Your task to perform on an android device: toggle show notifications on the lock screen Image 0: 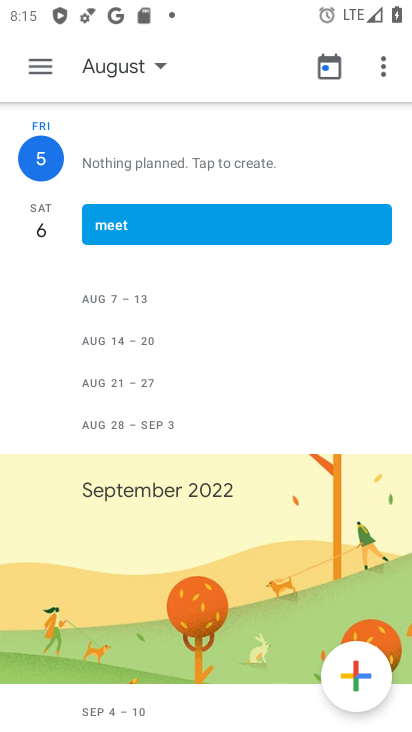
Step 0: press home button
Your task to perform on an android device: toggle show notifications on the lock screen Image 1: 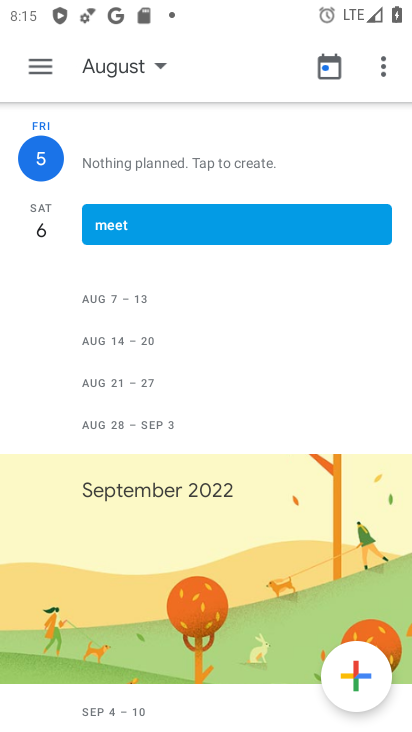
Step 1: press home button
Your task to perform on an android device: toggle show notifications on the lock screen Image 2: 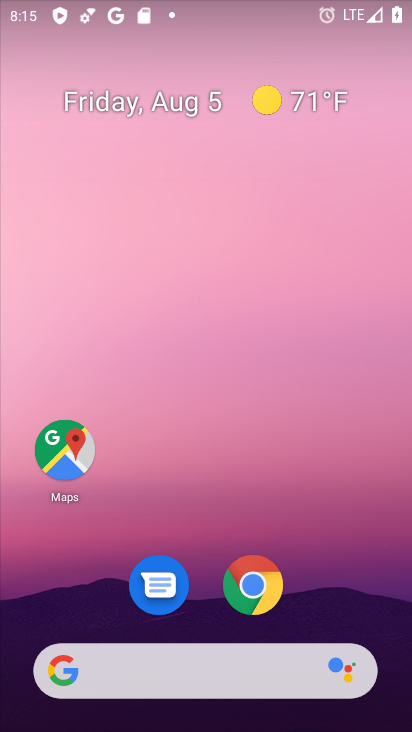
Step 2: drag from (222, 530) to (288, 15)
Your task to perform on an android device: toggle show notifications on the lock screen Image 3: 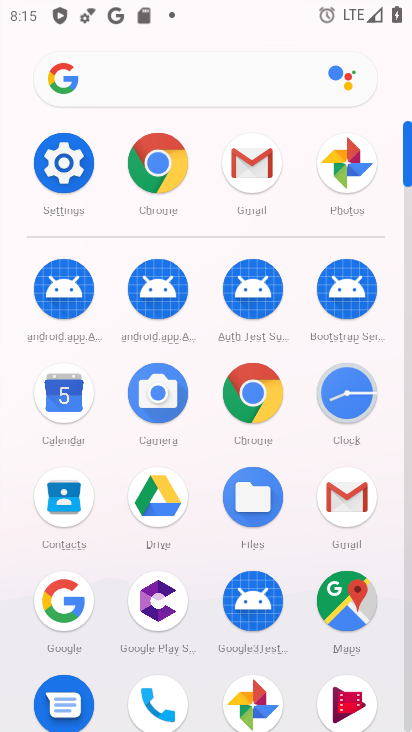
Step 3: click (71, 156)
Your task to perform on an android device: toggle show notifications on the lock screen Image 4: 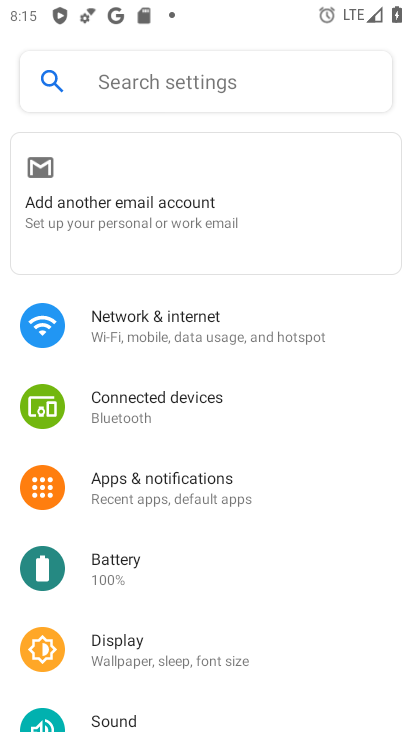
Step 4: click (219, 489)
Your task to perform on an android device: toggle show notifications on the lock screen Image 5: 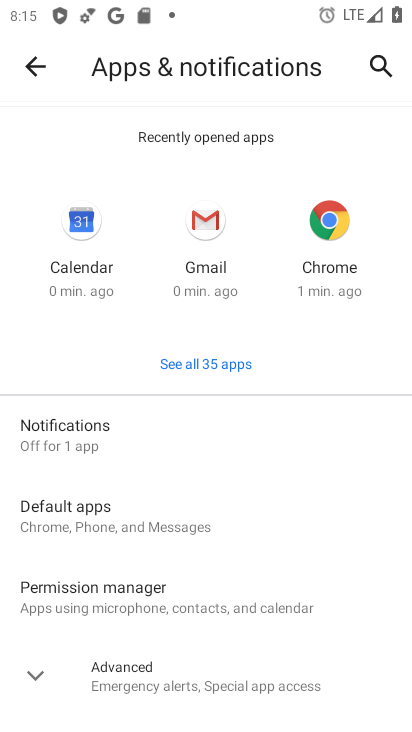
Step 5: click (100, 441)
Your task to perform on an android device: toggle show notifications on the lock screen Image 6: 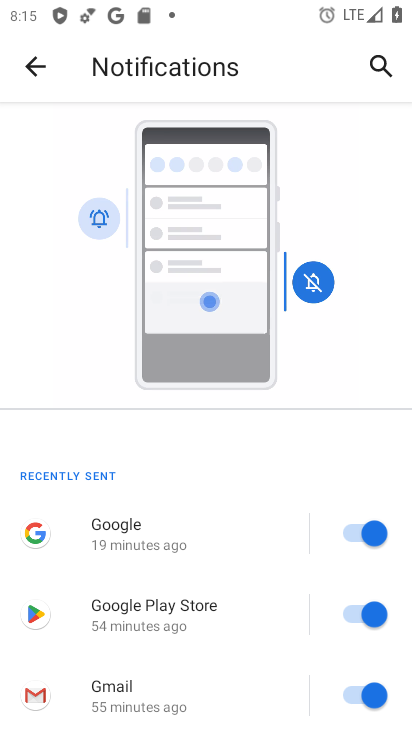
Step 6: drag from (216, 594) to (273, 193)
Your task to perform on an android device: toggle show notifications on the lock screen Image 7: 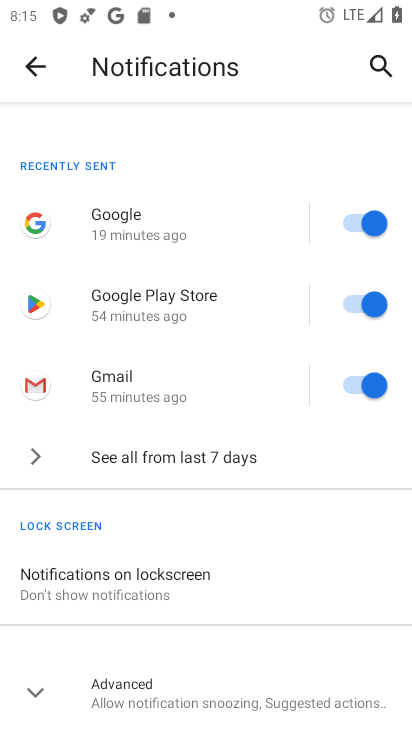
Step 7: click (146, 575)
Your task to perform on an android device: toggle show notifications on the lock screen Image 8: 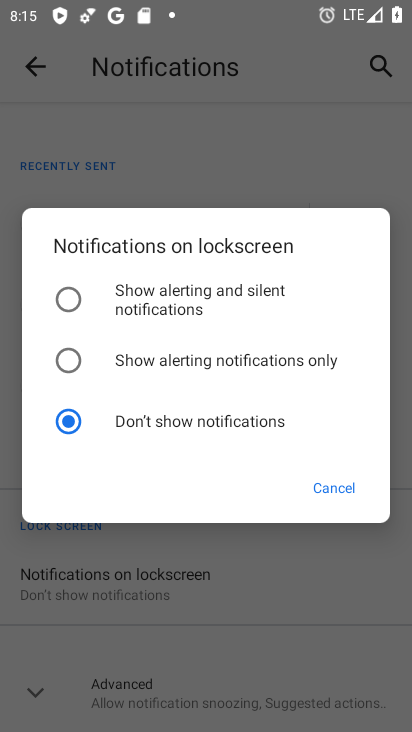
Step 8: click (160, 298)
Your task to perform on an android device: toggle show notifications on the lock screen Image 9: 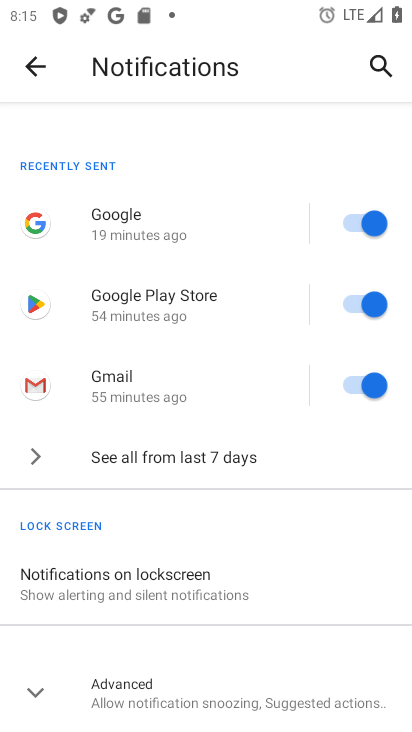
Step 9: task complete